Your task to perform on an android device: What's the weather going to be tomorrow? Image 0: 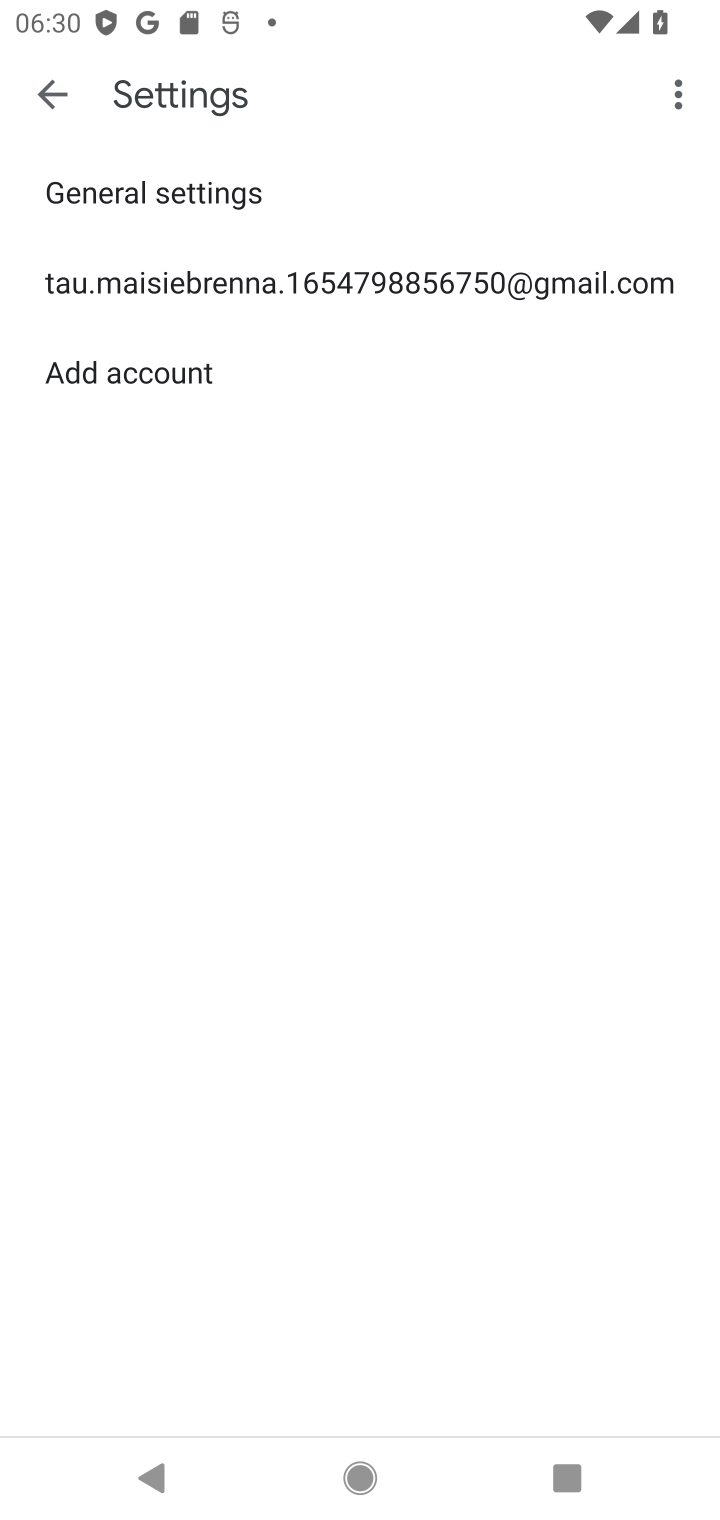
Step 0: press home button
Your task to perform on an android device: What's the weather going to be tomorrow? Image 1: 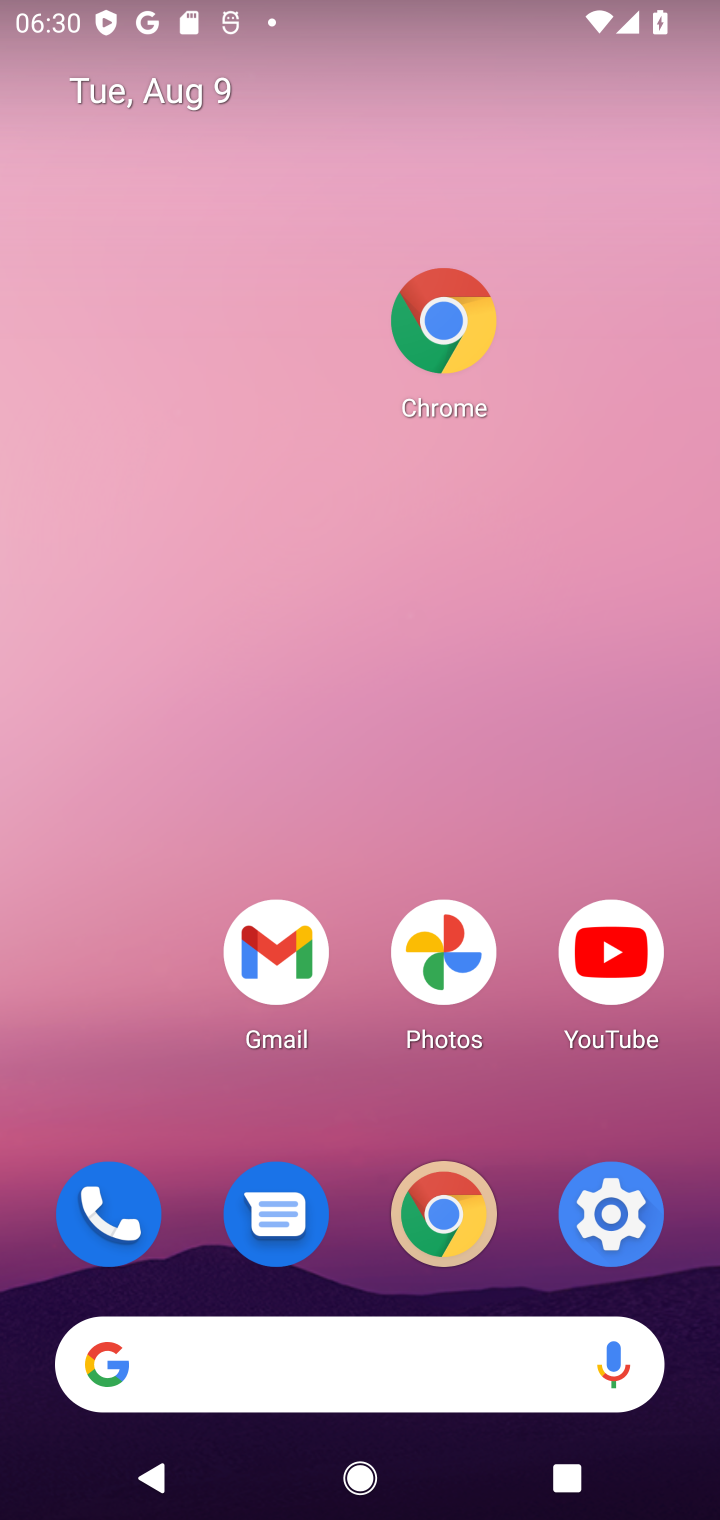
Step 1: click (420, 1386)
Your task to perform on an android device: What's the weather going to be tomorrow? Image 2: 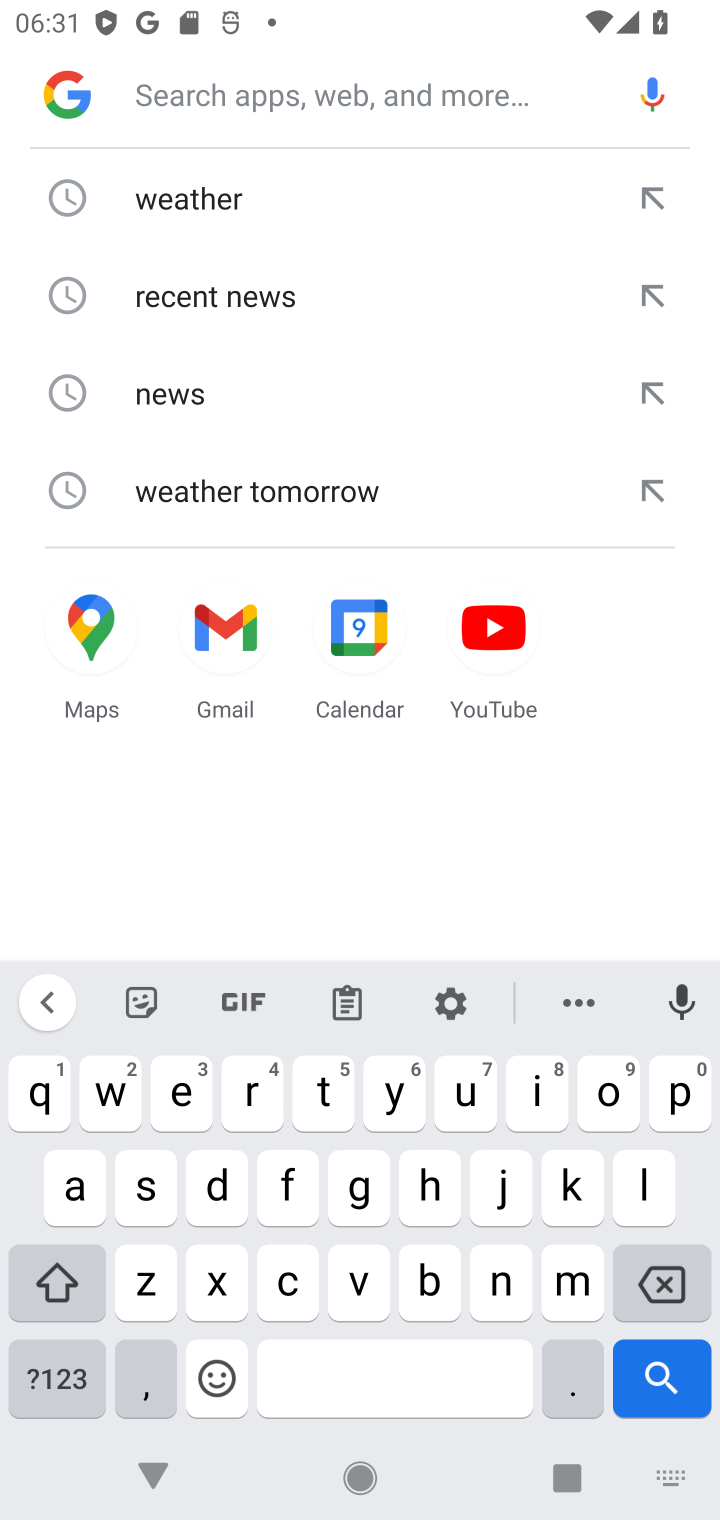
Step 2: click (225, 212)
Your task to perform on an android device: What's the weather going to be tomorrow? Image 3: 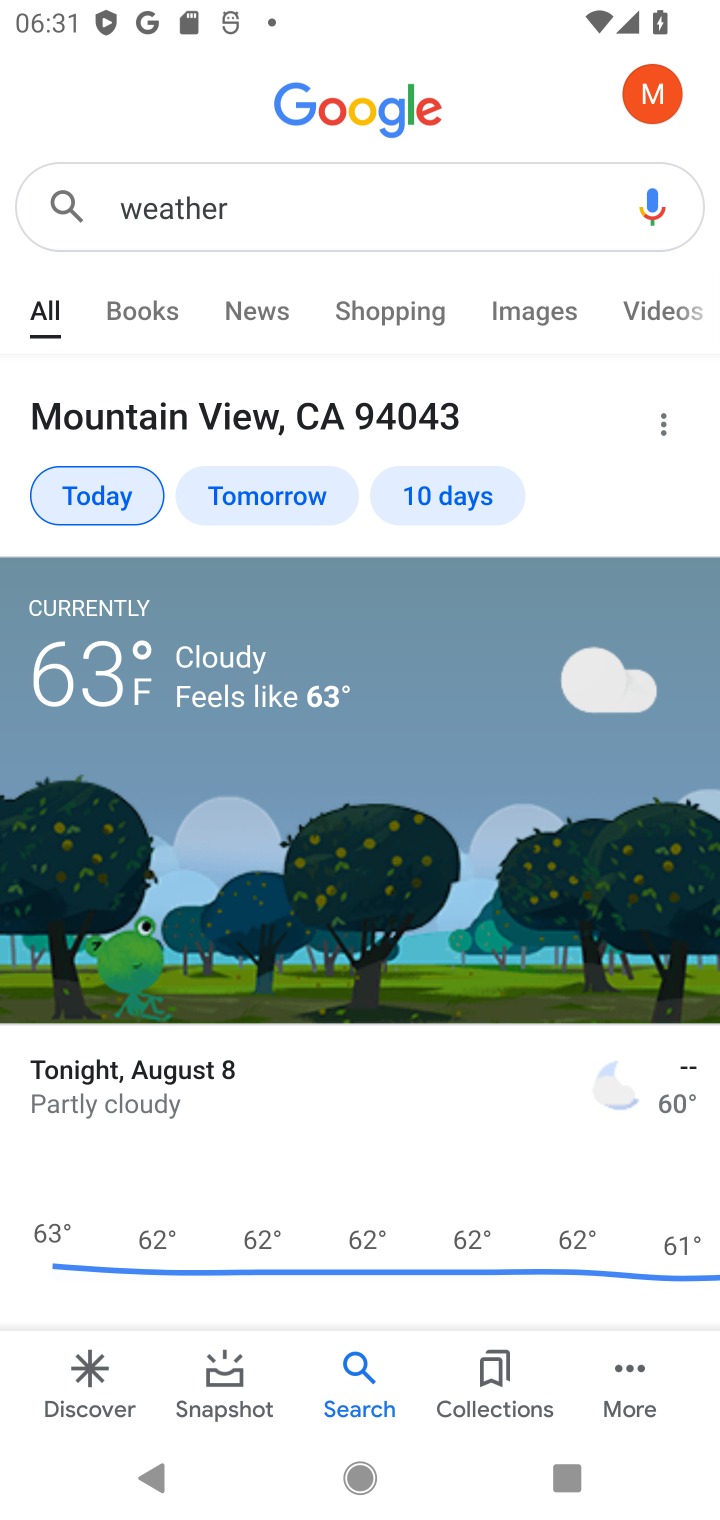
Step 3: click (245, 504)
Your task to perform on an android device: What's the weather going to be tomorrow? Image 4: 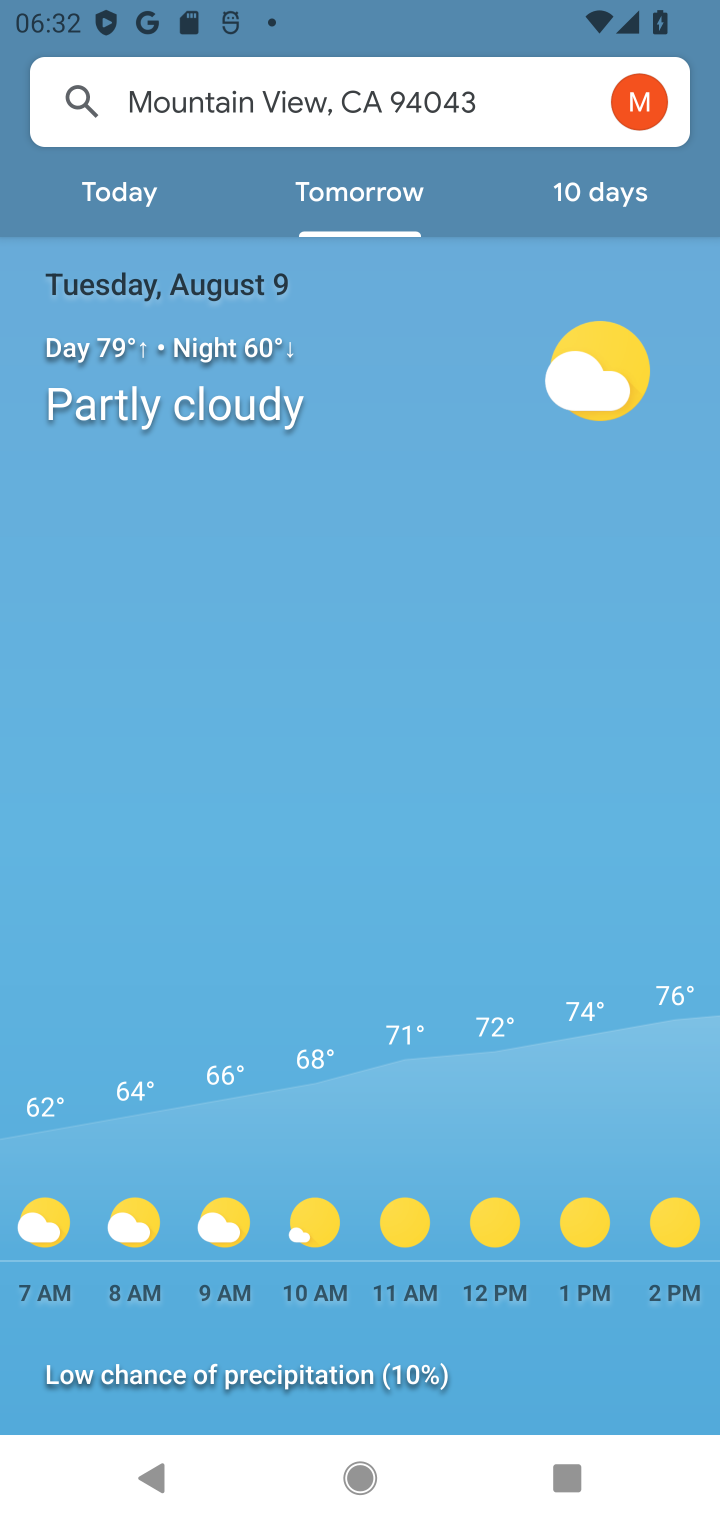
Step 4: task complete